Your task to perform on an android device: turn on improve location accuracy Image 0: 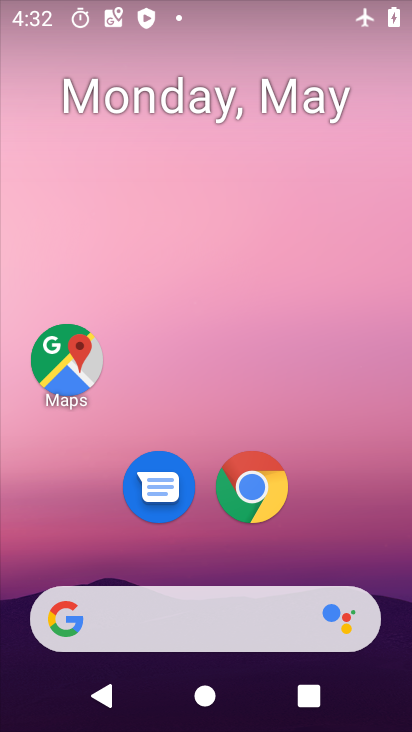
Step 0: click (261, 278)
Your task to perform on an android device: turn on improve location accuracy Image 1: 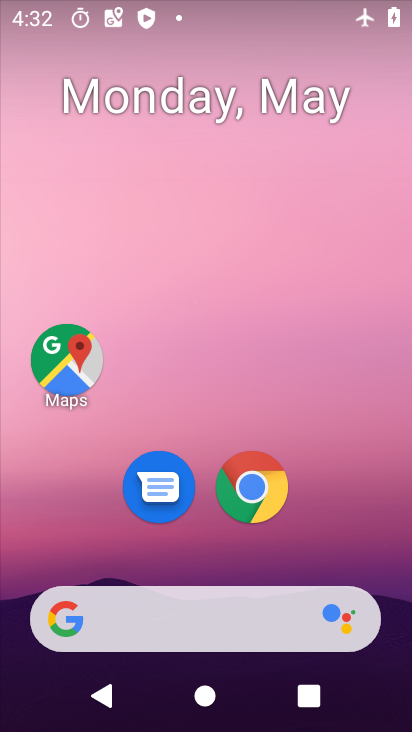
Step 1: drag from (172, 579) to (187, 474)
Your task to perform on an android device: turn on improve location accuracy Image 2: 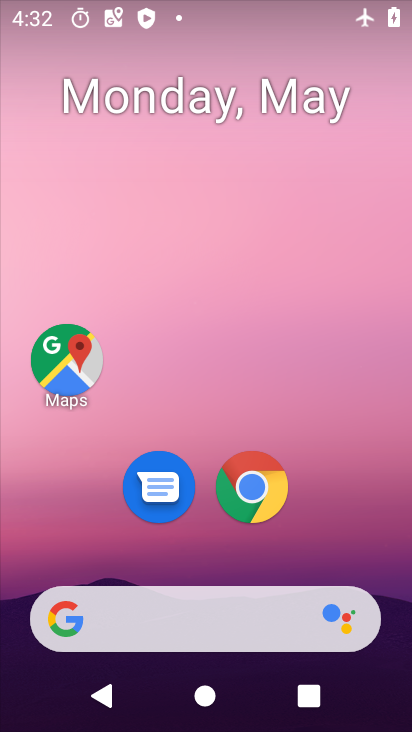
Step 2: drag from (251, 532) to (309, 90)
Your task to perform on an android device: turn on improve location accuracy Image 3: 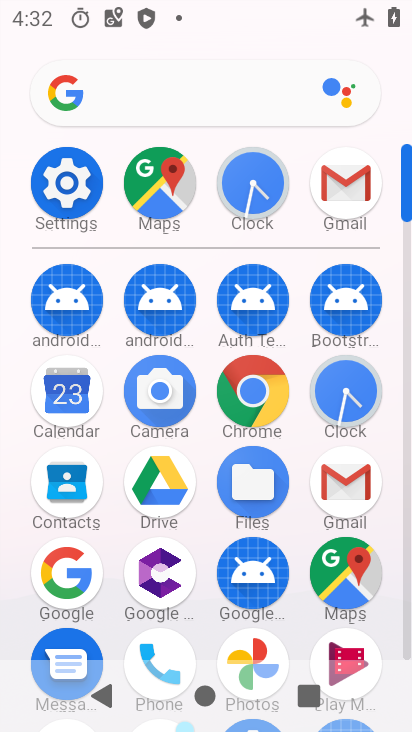
Step 3: click (66, 183)
Your task to perform on an android device: turn on improve location accuracy Image 4: 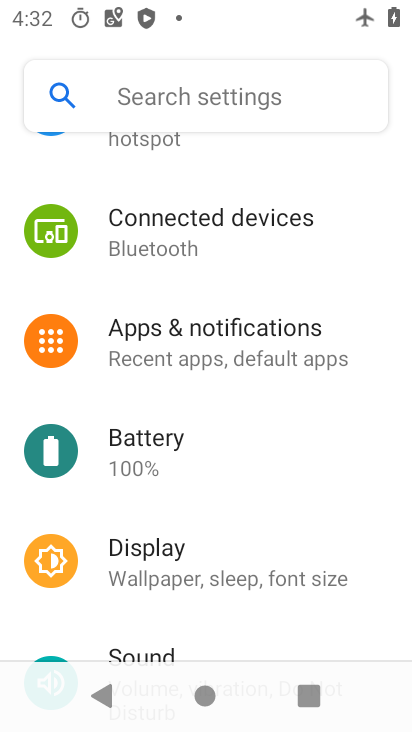
Step 4: drag from (184, 631) to (244, 296)
Your task to perform on an android device: turn on improve location accuracy Image 5: 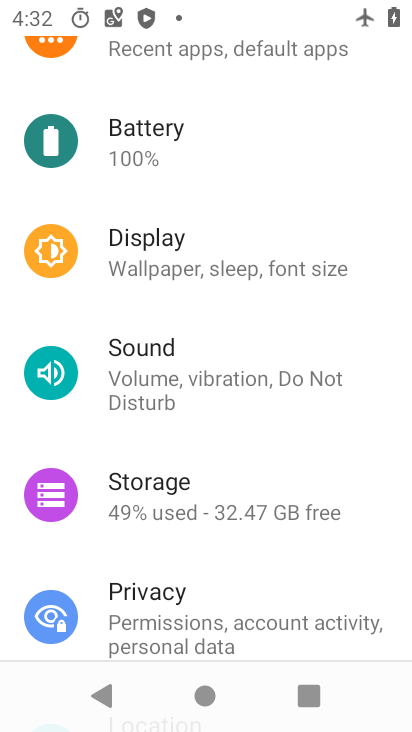
Step 5: drag from (177, 607) to (199, 235)
Your task to perform on an android device: turn on improve location accuracy Image 6: 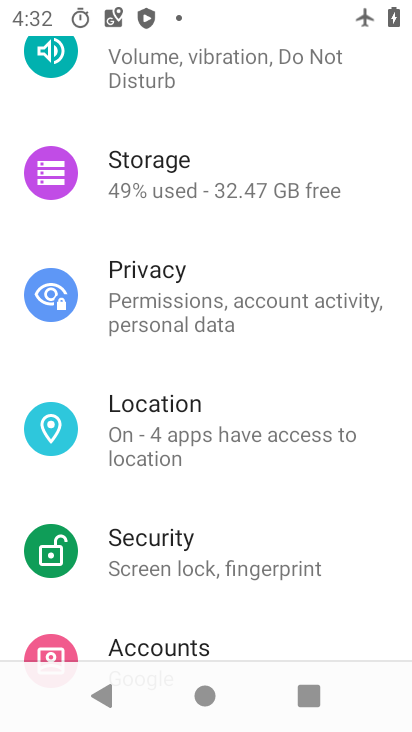
Step 6: click (165, 424)
Your task to perform on an android device: turn on improve location accuracy Image 7: 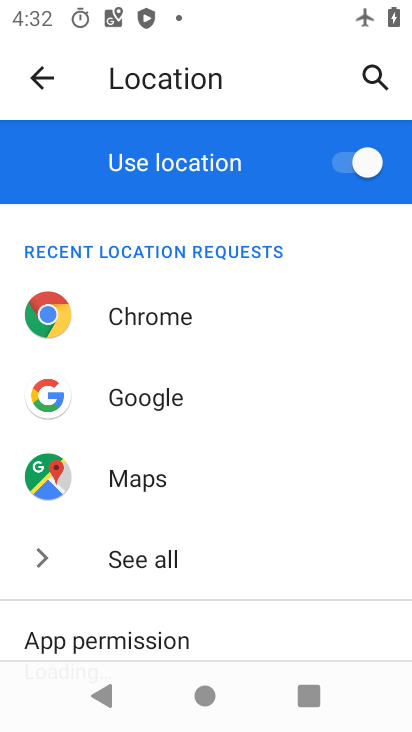
Step 7: drag from (162, 582) to (231, 183)
Your task to perform on an android device: turn on improve location accuracy Image 8: 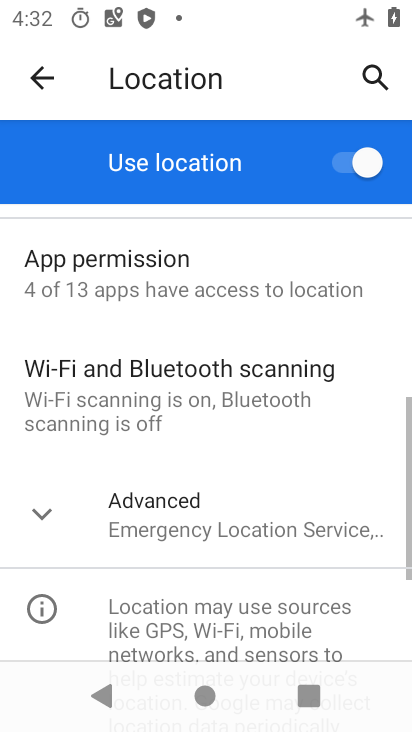
Step 8: click (192, 518)
Your task to perform on an android device: turn on improve location accuracy Image 9: 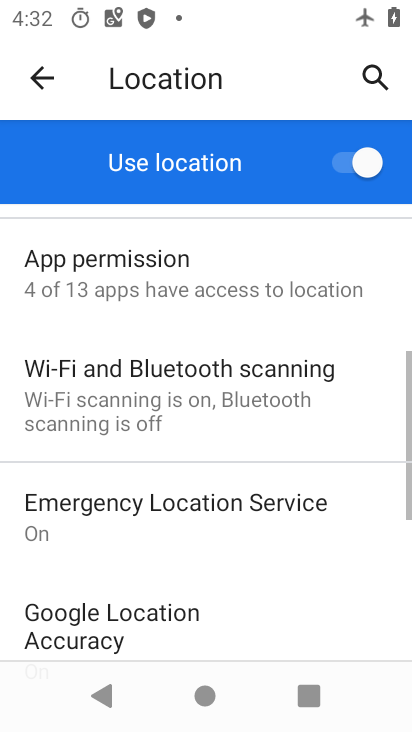
Step 9: drag from (210, 621) to (255, 316)
Your task to perform on an android device: turn on improve location accuracy Image 10: 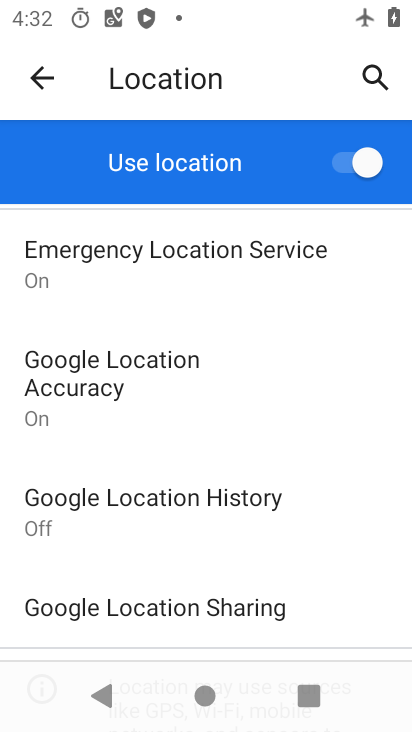
Step 10: click (124, 386)
Your task to perform on an android device: turn on improve location accuracy Image 11: 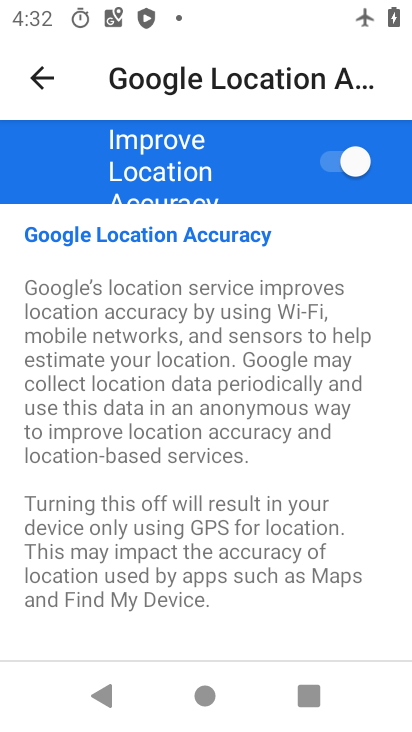
Step 11: task complete